Your task to perform on an android device: Go to location settings Image 0: 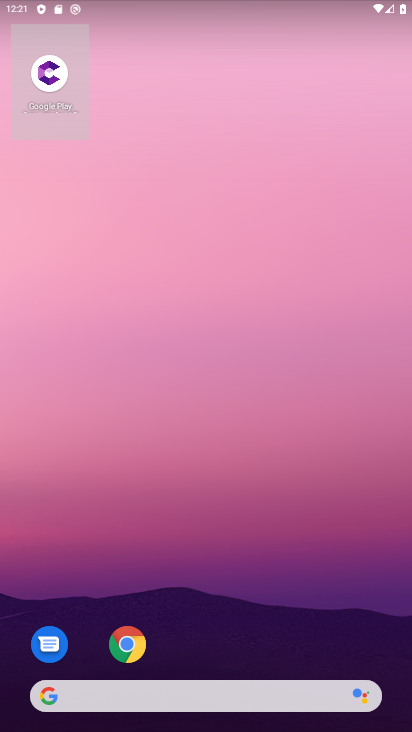
Step 0: drag from (317, 697) to (366, 57)
Your task to perform on an android device: Go to location settings Image 1: 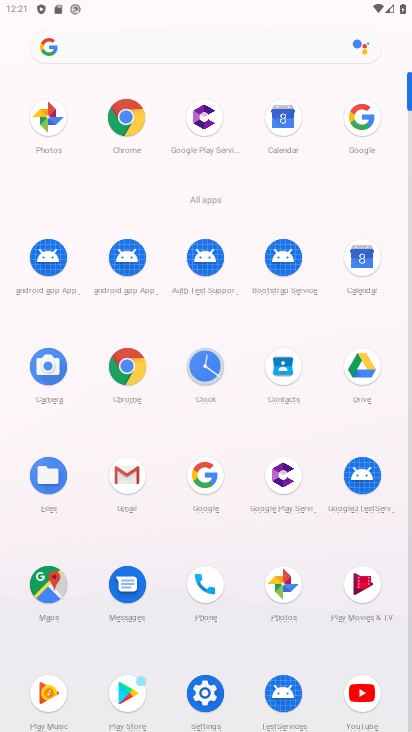
Step 1: click (214, 694)
Your task to perform on an android device: Go to location settings Image 2: 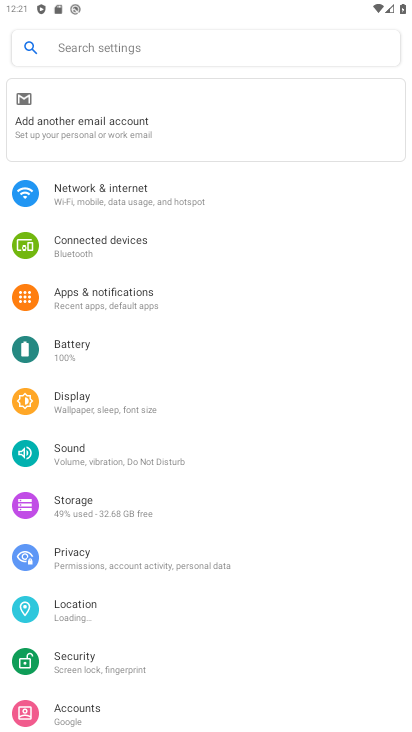
Step 2: click (157, 600)
Your task to perform on an android device: Go to location settings Image 3: 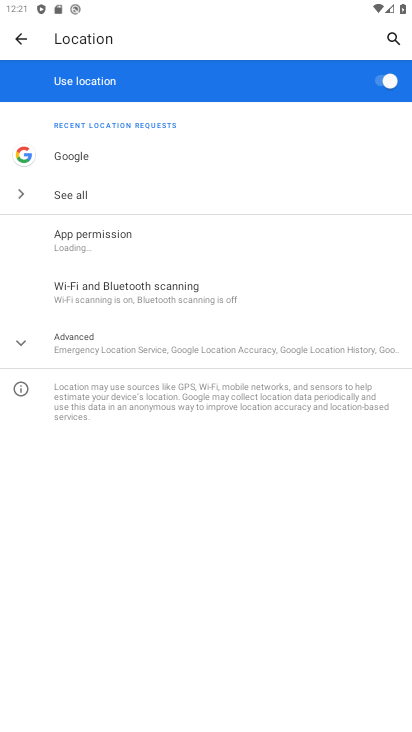
Step 3: task complete